Your task to perform on an android device: Check the weather Image 0: 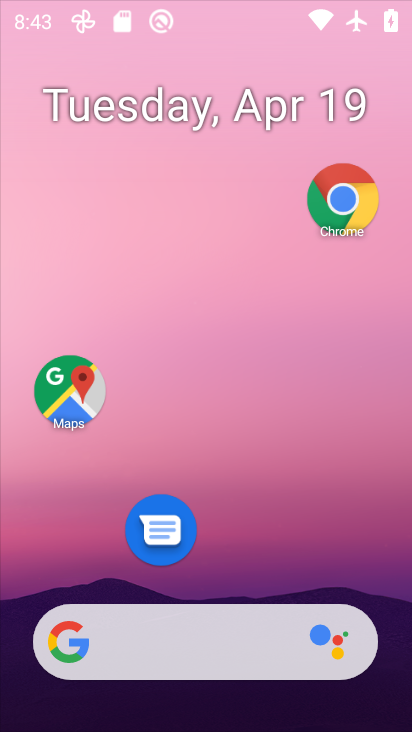
Step 0: click (263, 168)
Your task to perform on an android device: Check the weather Image 1: 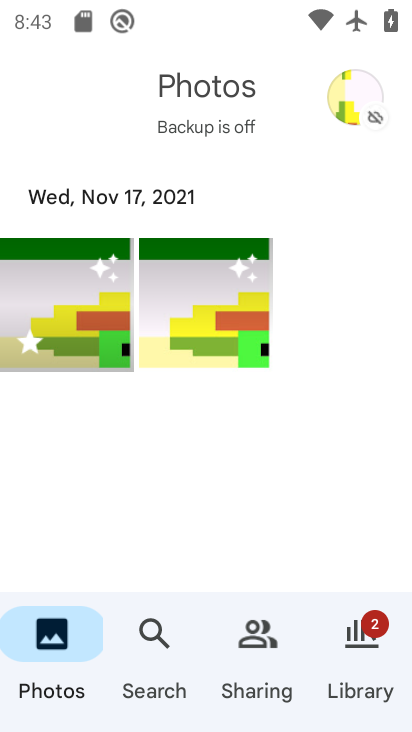
Step 1: press home button
Your task to perform on an android device: Check the weather Image 2: 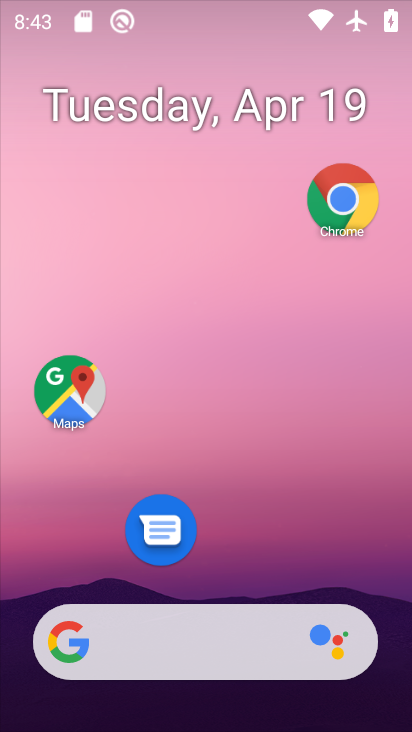
Step 2: drag from (217, 564) to (247, 161)
Your task to perform on an android device: Check the weather Image 3: 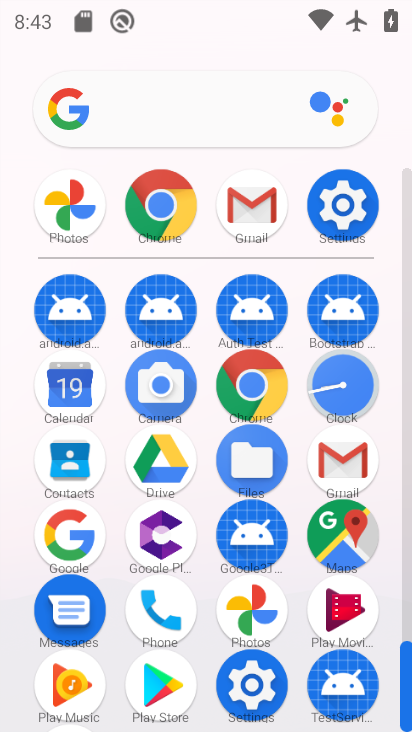
Step 3: click (258, 380)
Your task to perform on an android device: Check the weather Image 4: 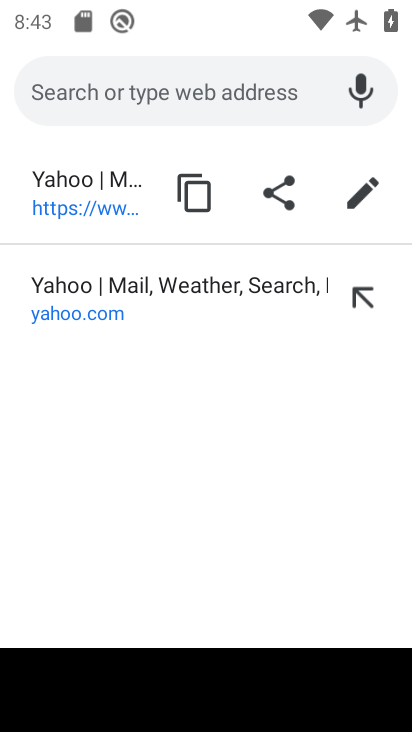
Step 4: click (153, 82)
Your task to perform on an android device: Check the weather Image 5: 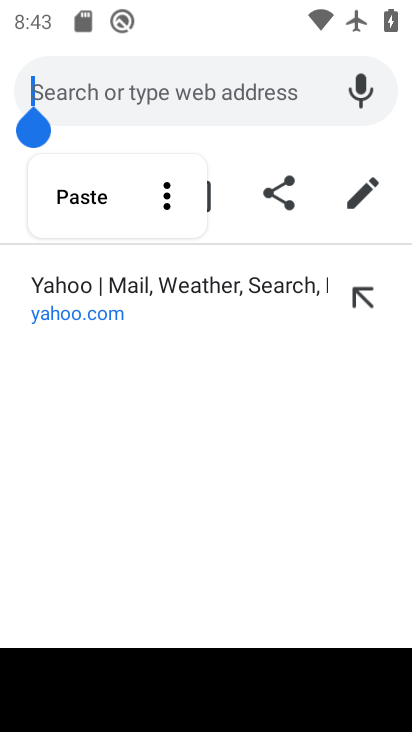
Step 5: click (157, 93)
Your task to perform on an android device: Check the weather Image 6: 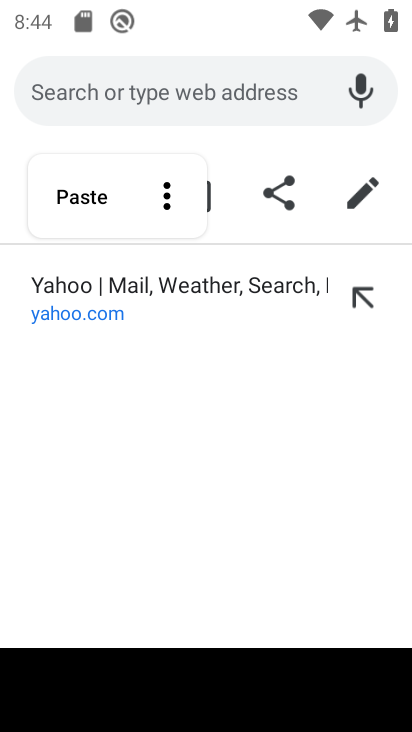
Step 6: type "weather"
Your task to perform on an android device: Check the weather Image 7: 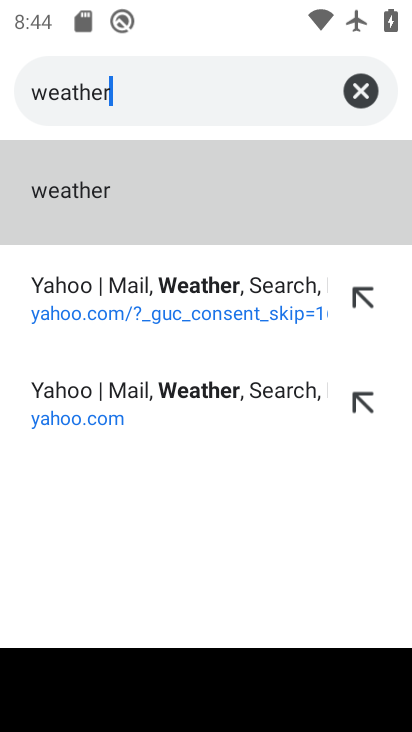
Step 7: click (87, 206)
Your task to perform on an android device: Check the weather Image 8: 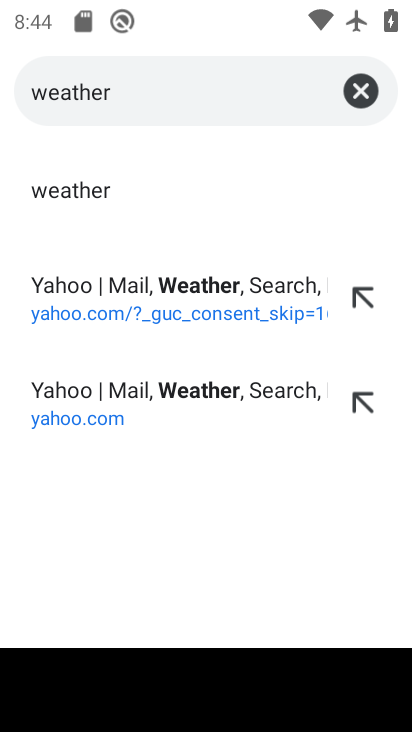
Step 8: click (85, 184)
Your task to perform on an android device: Check the weather Image 9: 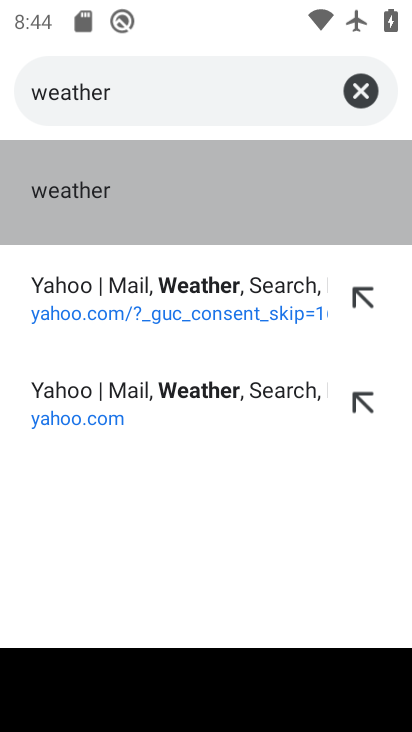
Step 9: click (88, 188)
Your task to perform on an android device: Check the weather Image 10: 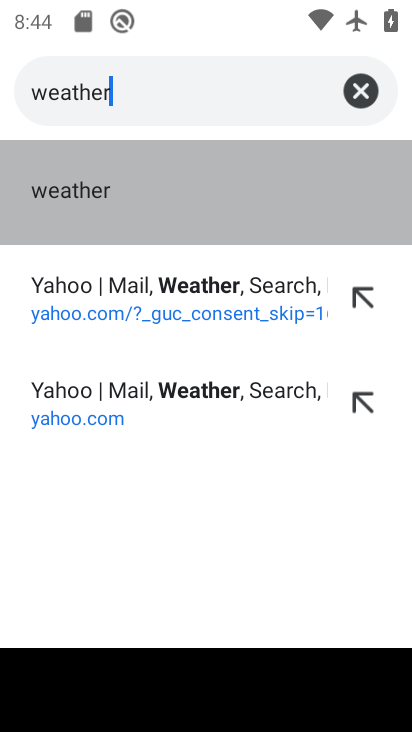
Step 10: click (89, 189)
Your task to perform on an android device: Check the weather Image 11: 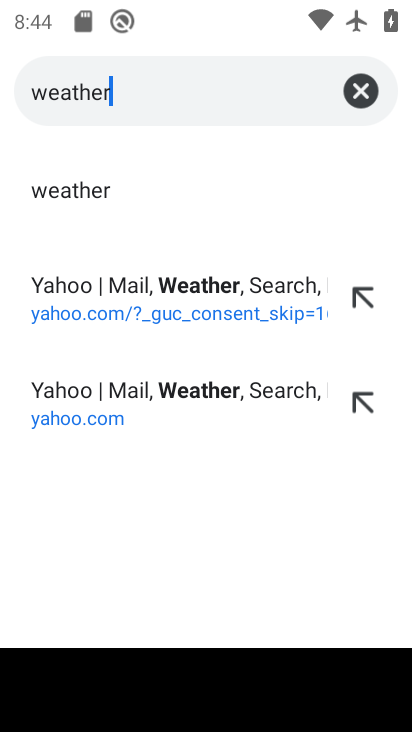
Step 11: click (89, 189)
Your task to perform on an android device: Check the weather Image 12: 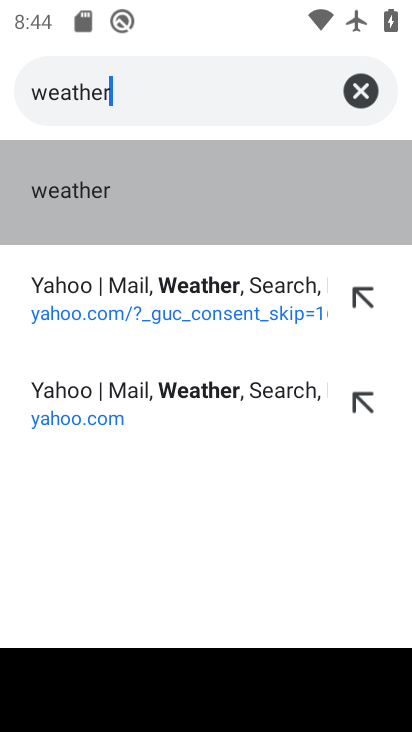
Step 12: click (89, 189)
Your task to perform on an android device: Check the weather Image 13: 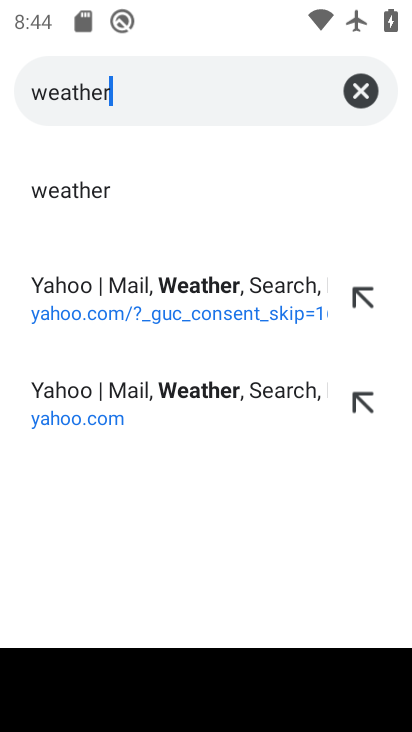
Step 13: click (88, 189)
Your task to perform on an android device: Check the weather Image 14: 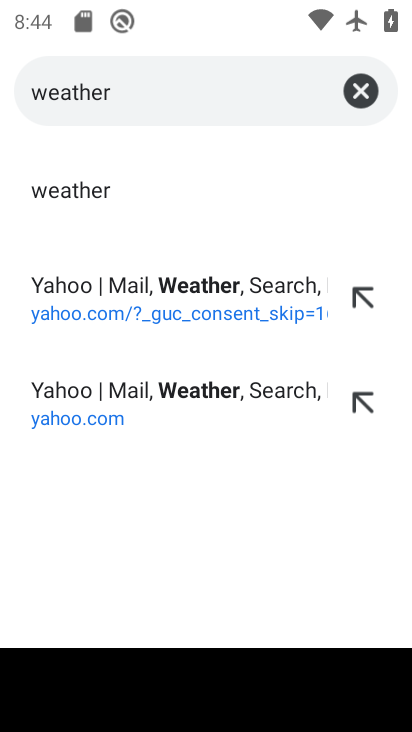
Step 14: click (56, 196)
Your task to perform on an android device: Check the weather Image 15: 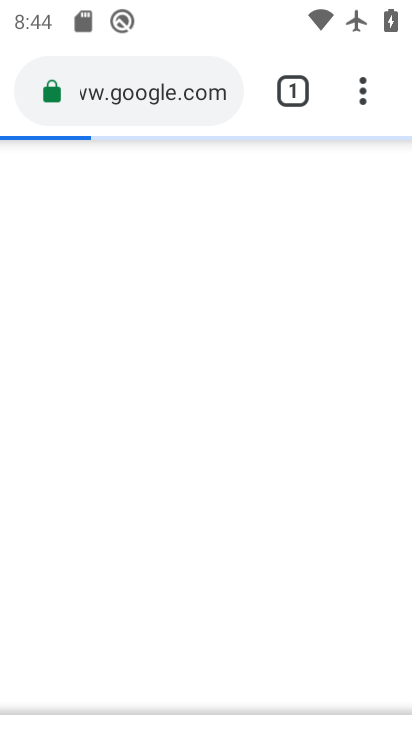
Step 15: click (86, 190)
Your task to perform on an android device: Check the weather Image 16: 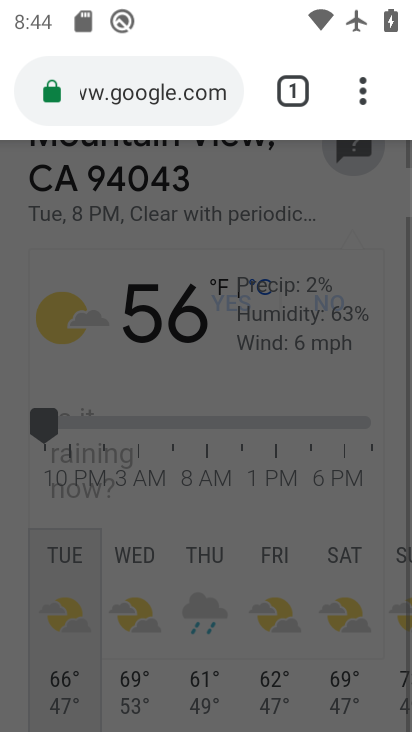
Step 16: drag from (235, 384) to (343, 25)
Your task to perform on an android device: Check the weather Image 17: 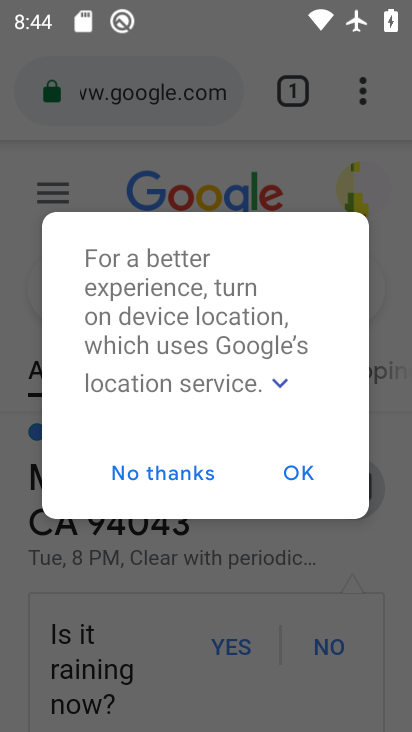
Step 17: click (166, 470)
Your task to perform on an android device: Check the weather Image 18: 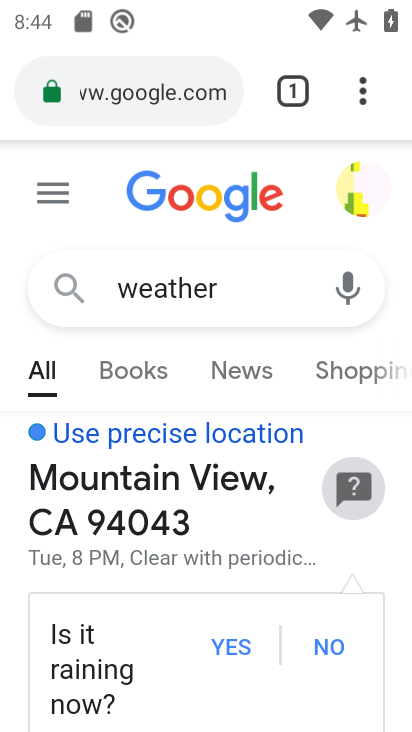
Step 18: task complete